Your task to perform on an android device: Open sound settings Image 0: 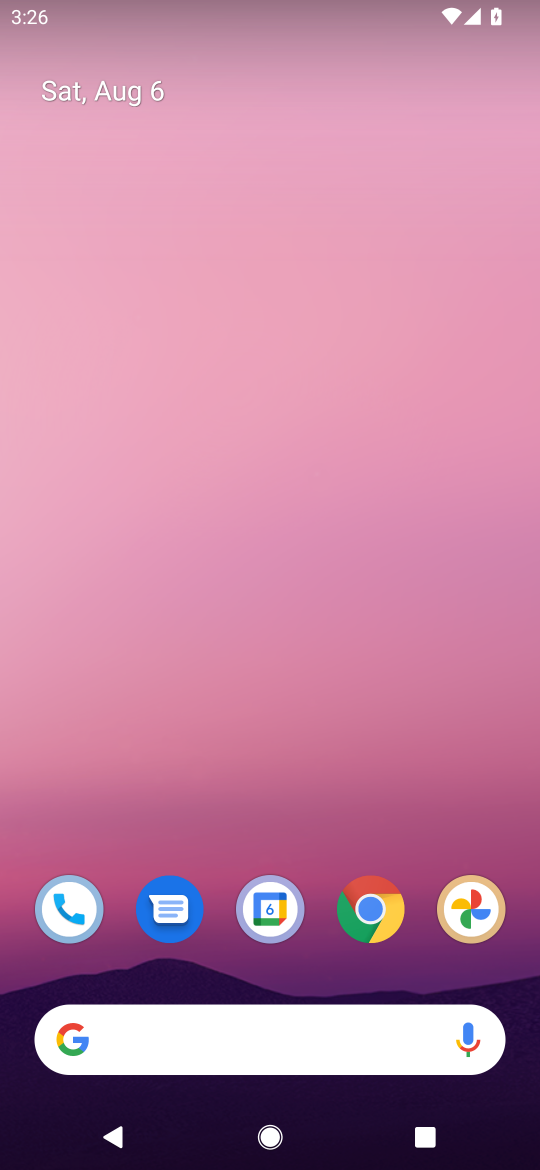
Step 0: drag from (234, 921) to (376, 48)
Your task to perform on an android device: Open sound settings Image 1: 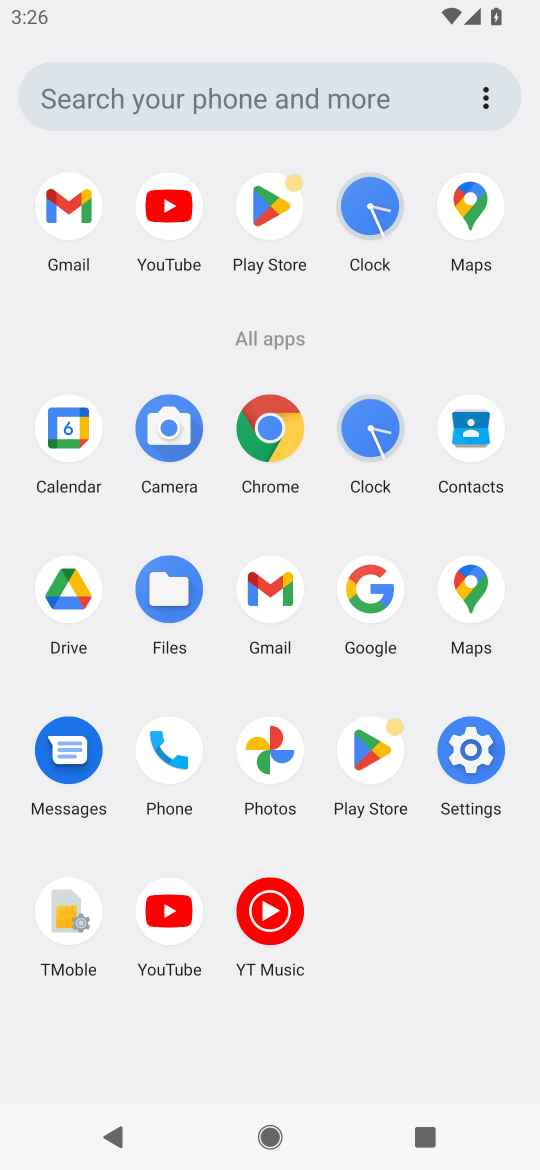
Step 1: click (461, 770)
Your task to perform on an android device: Open sound settings Image 2: 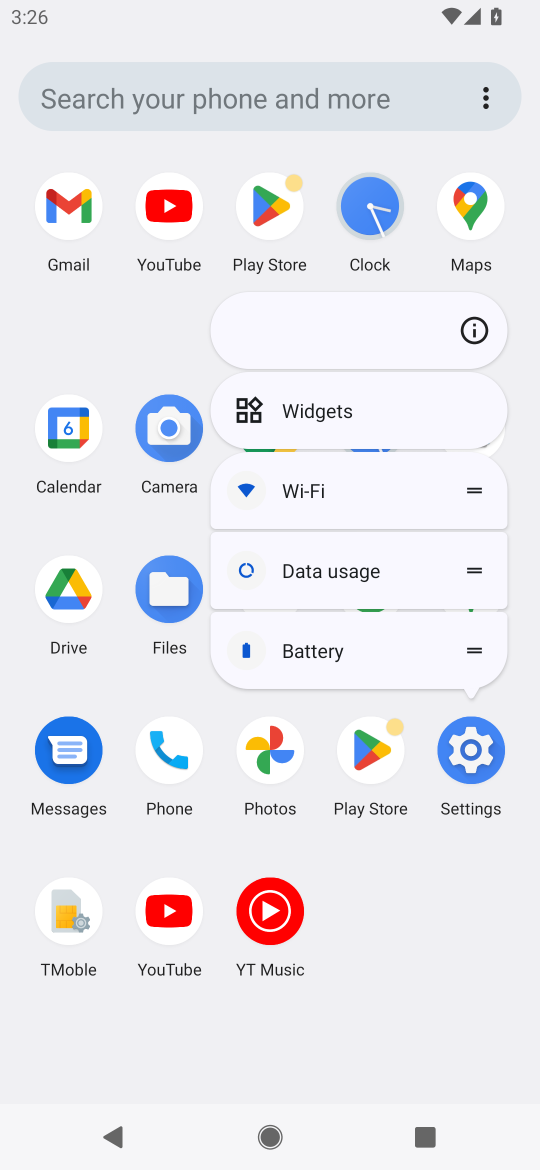
Step 2: click (499, 756)
Your task to perform on an android device: Open sound settings Image 3: 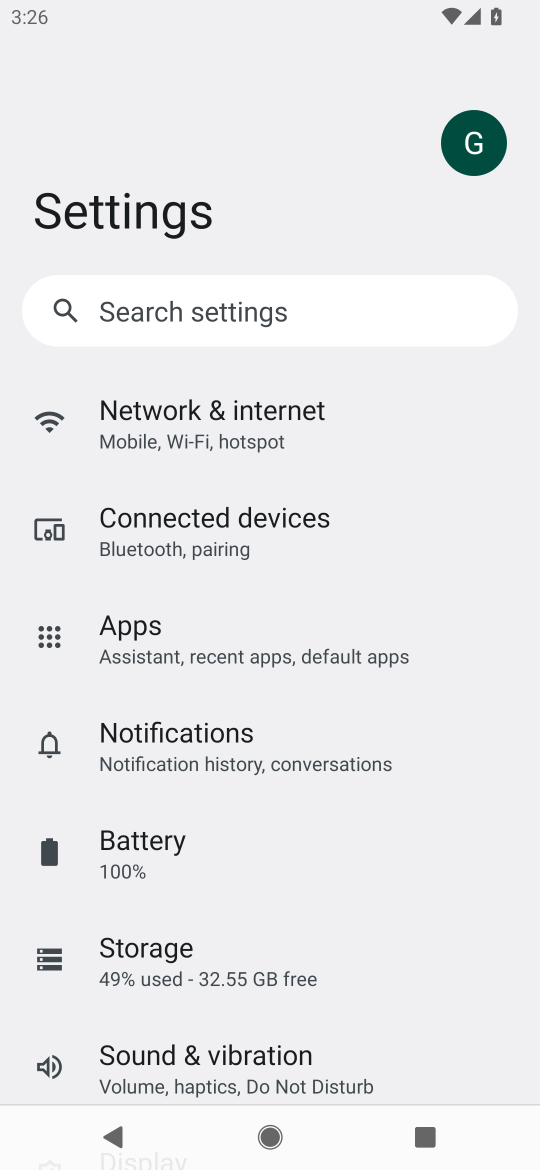
Step 3: drag from (180, 1002) to (243, 253)
Your task to perform on an android device: Open sound settings Image 4: 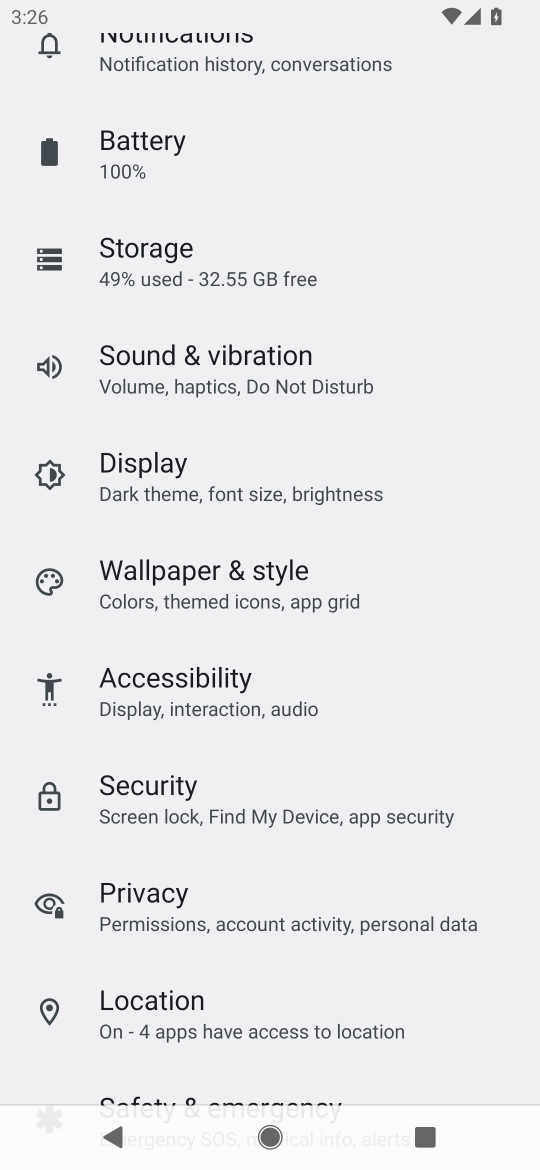
Step 4: drag from (201, 1030) to (226, 945)
Your task to perform on an android device: Open sound settings Image 5: 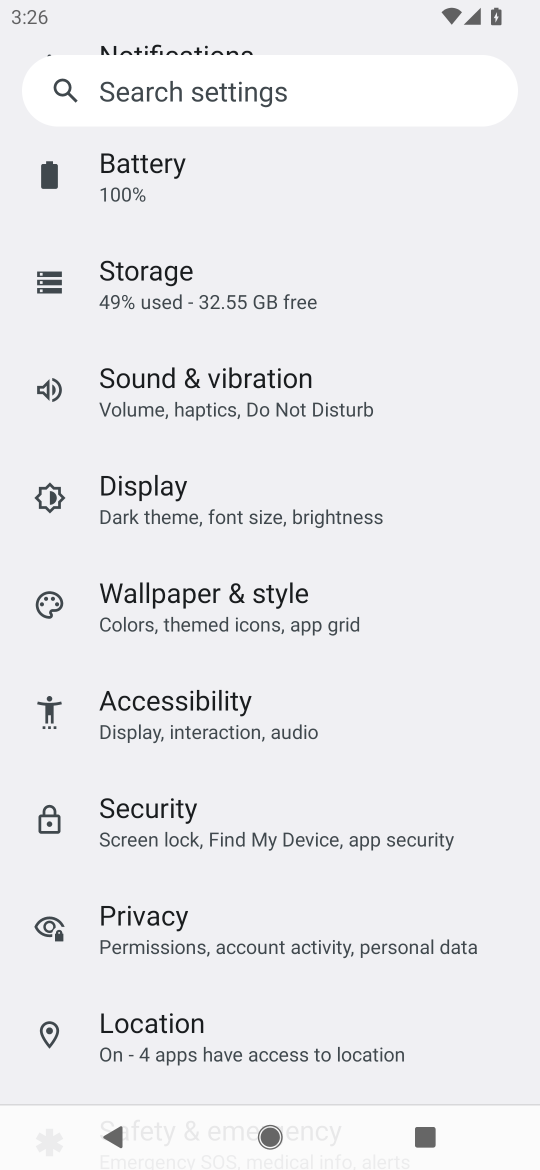
Step 5: drag from (249, 256) to (205, 856)
Your task to perform on an android device: Open sound settings Image 6: 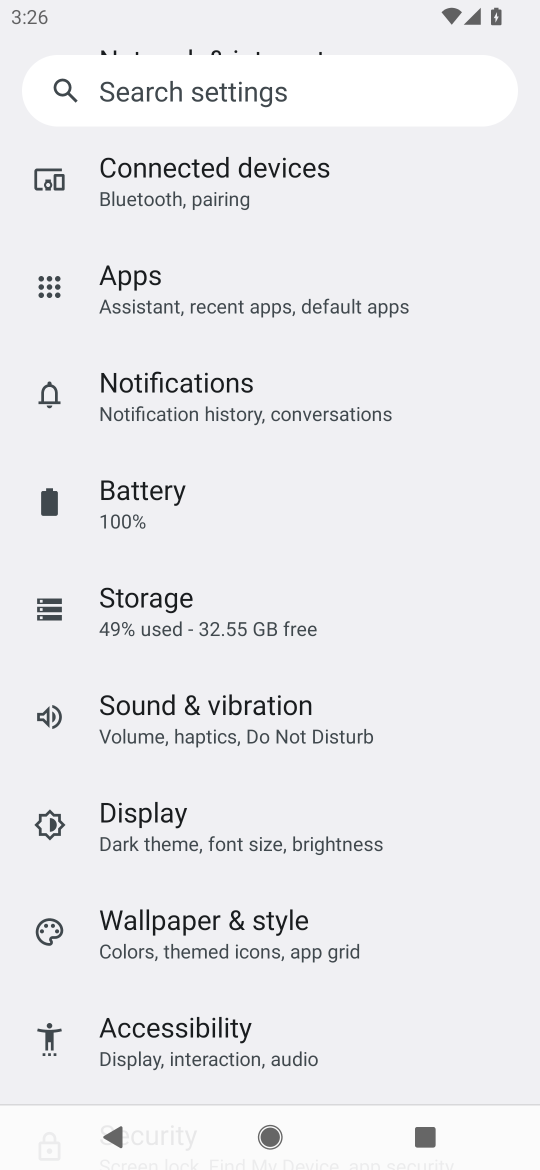
Step 6: drag from (218, 324) to (184, 894)
Your task to perform on an android device: Open sound settings Image 7: 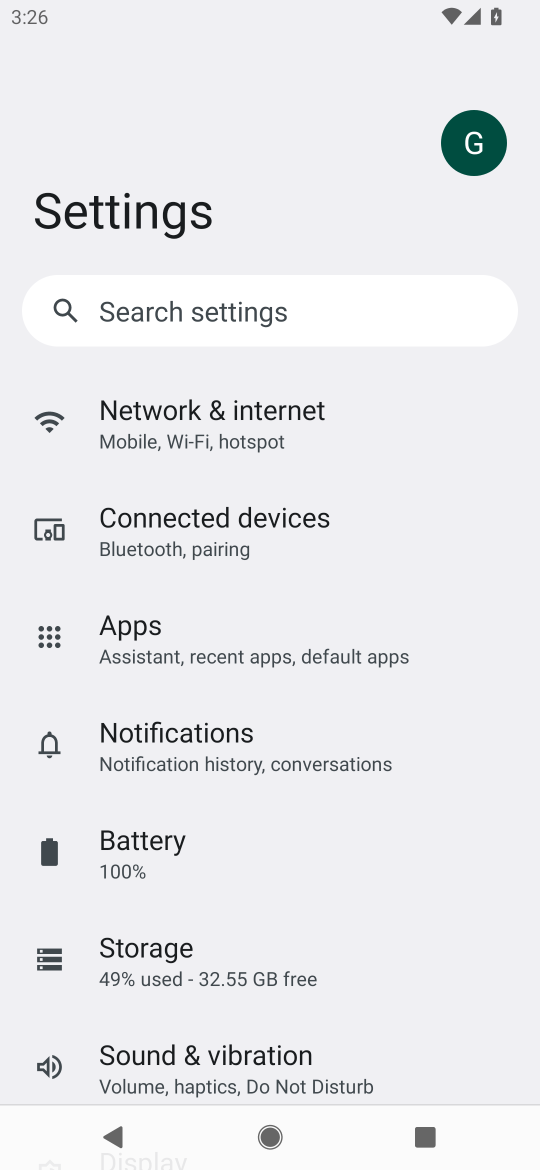
Step 7: drag from (167, 924) to (325, 295)
Your task to perform on an android device: Open sound settings Image 8: 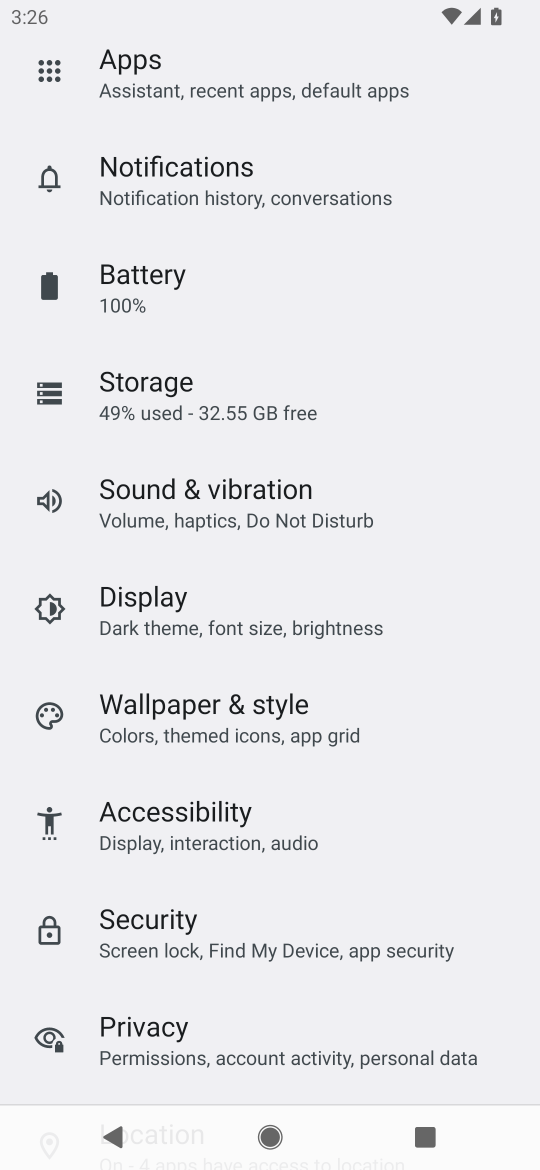
Step 8: click (170, 524)
Your task to perform on an android device: Open sound settings Image 9: 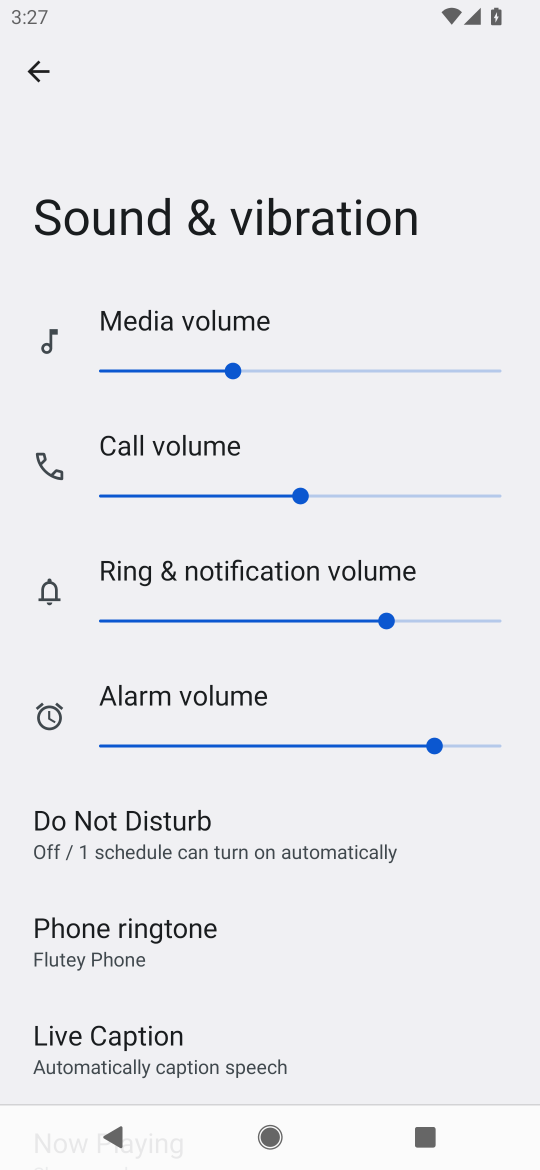
Step 9: task complete